Your task to perform on an android device: Open eBay Image 0: 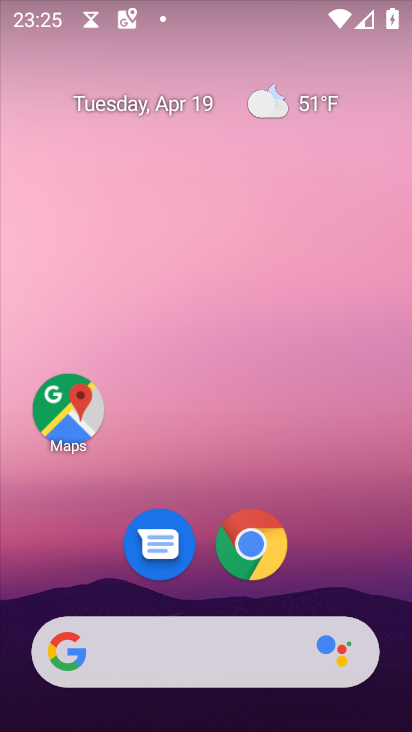
Step 0: click (253, 547)
Your task to perform on an android device: Open eBay Image 1: 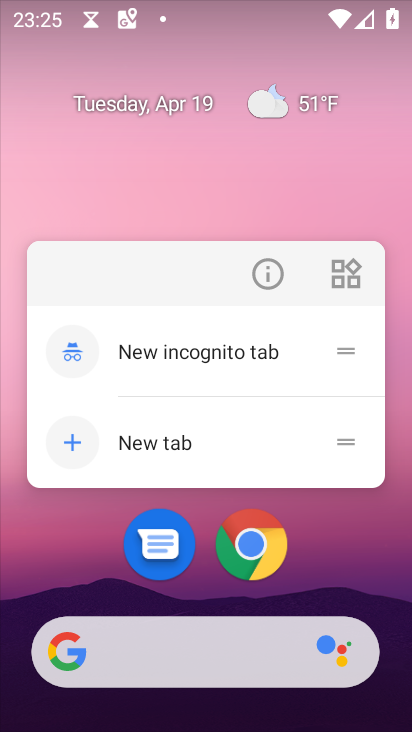
Step 1: click (252, 546)
Your task to perform on an android device: Open eBay Image 2: 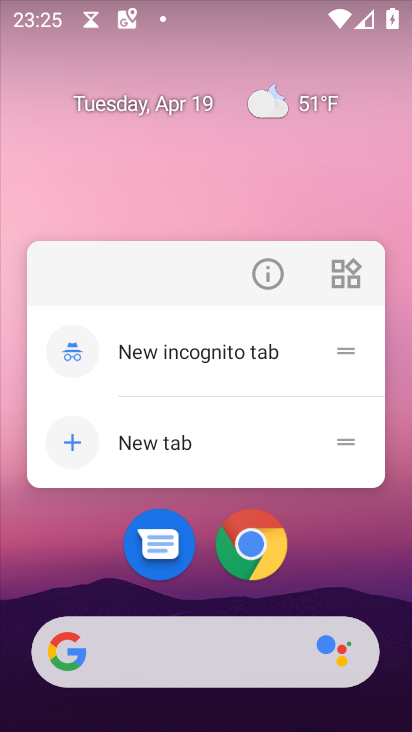
Step 2: click (252, 546)
Your task to perform on an android device: Open eBay Image 3: 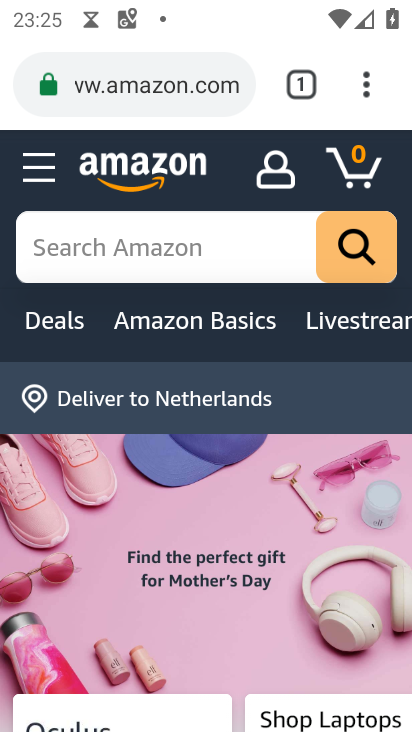
Step 3: click (215, 86)
Your task to perform on an android device: Open eBay Image 4: 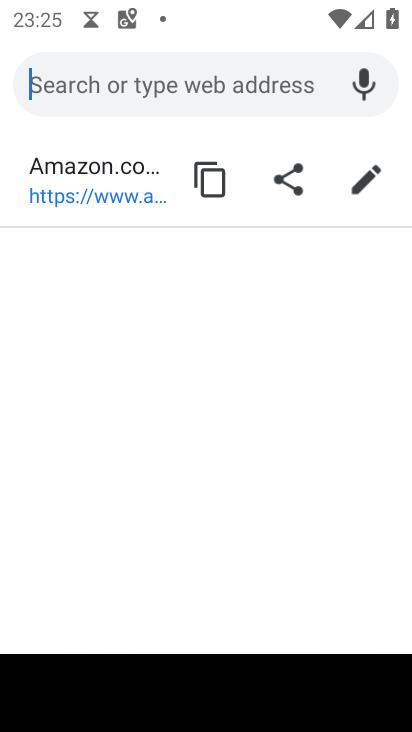
Step 4: type "ebay"
Your task to perform on an android device: Open eBay Image 5: 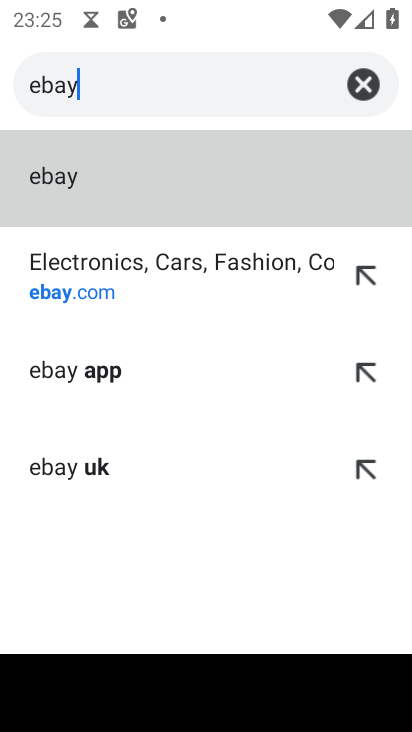
Step 5: click (70, 192)
Your task to perform on an android device: Open eBay Image 6: 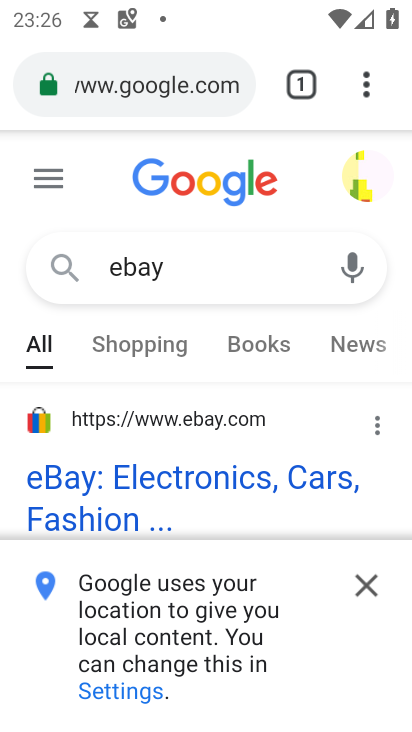
Step 6: click (143, 475)
Your task to perform on an android device: Open eBay Image 7: 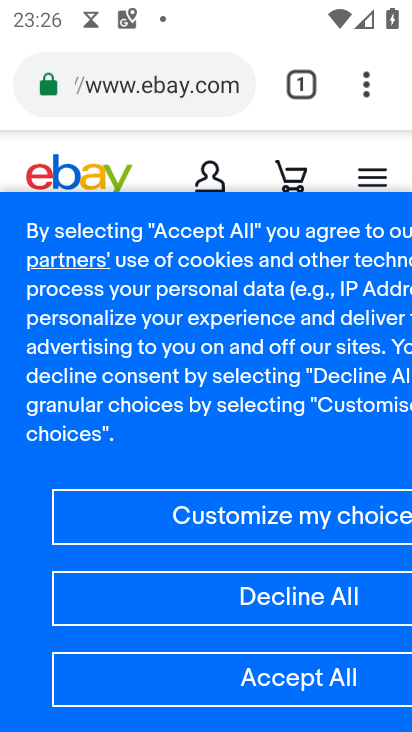
Step 7: task complete